Your task to perform on an android device: Open Google Image 0: 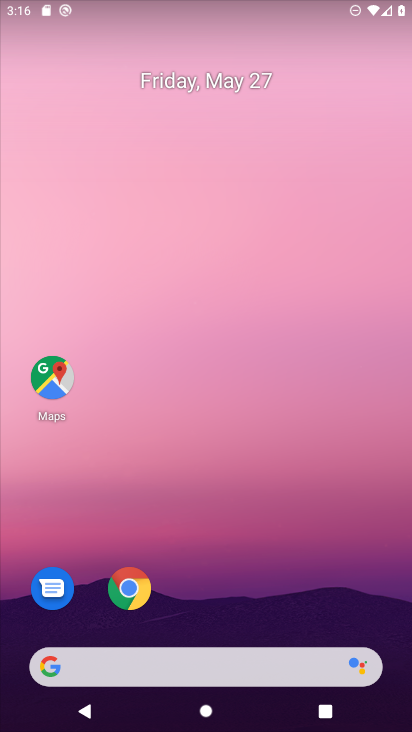
Step 0: drag from (256, 542) to (279, 274)
Your task to perform on an android device: Open Google Image 1: 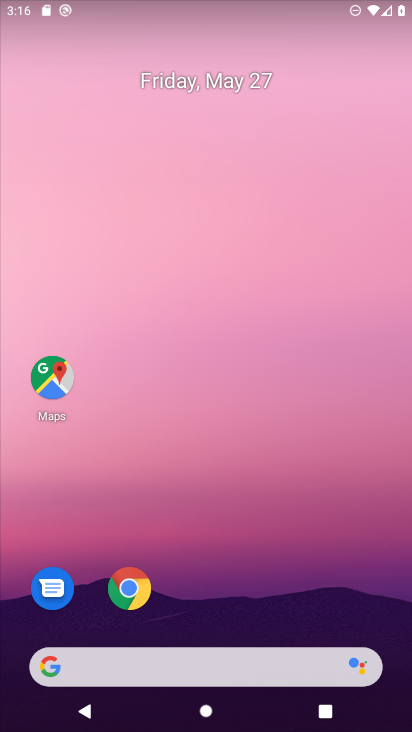
Step 1: drag from (283, 599) to (315, 165)
Your task to perform on an android device: Open Google Image 2: 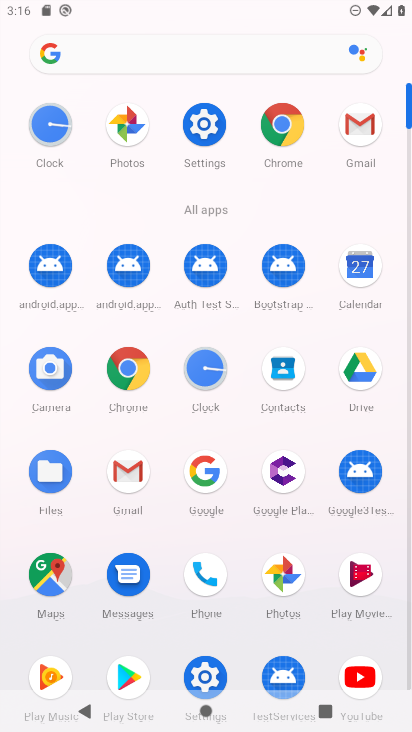
Step 2: click (211, 477)
Your task to perform on an android device: Open Google Image 3: 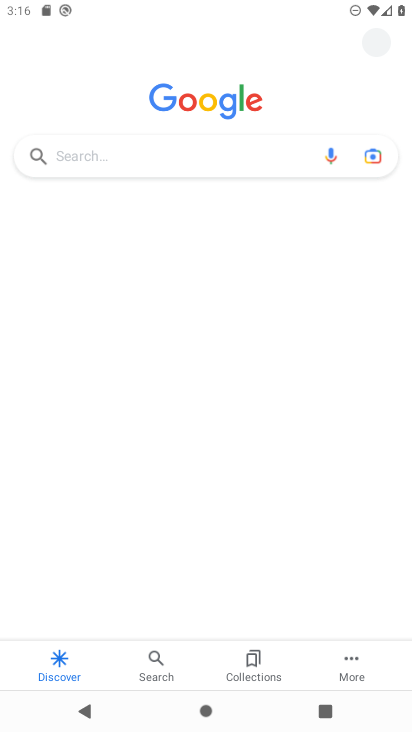
Step 3: click (211, 477)
Your task to perform on an android device: Open Google Image 4: 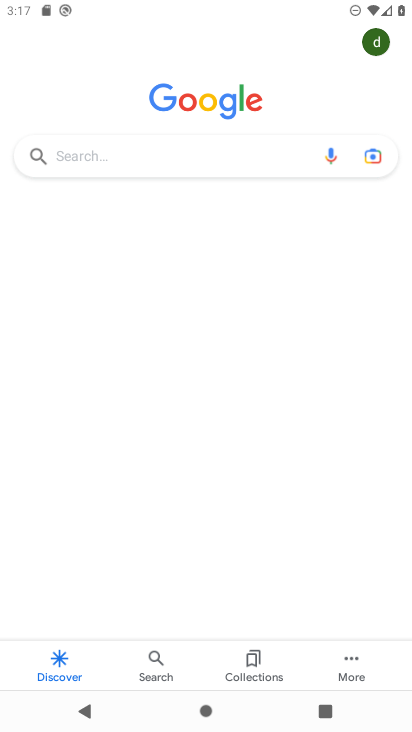
Step 4: task complete